Your task to perform on an android device: Is it going to rain this weekend? Image 0: 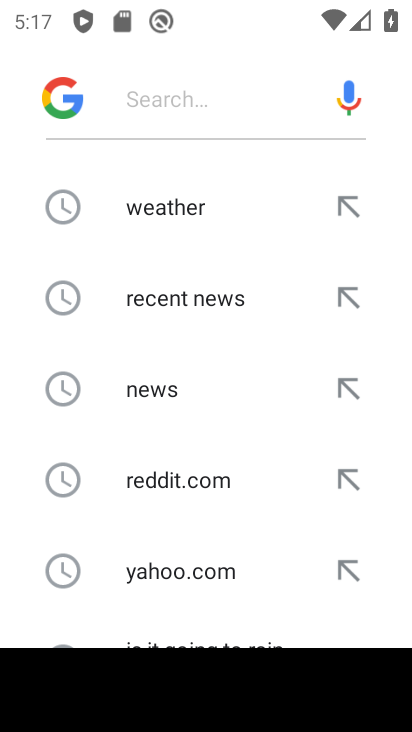
Step 0: drag from (210, 446) to (222, 210)
Your task to perform on an android device: Is it going to rain this weekend? Image 1: 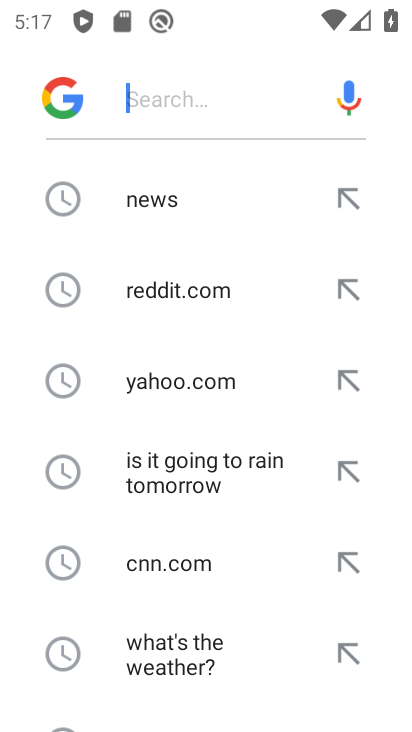
Step 1: click (197, 473)
Your task to perform on an android device: Is it going to rain this weekend? Image 2: 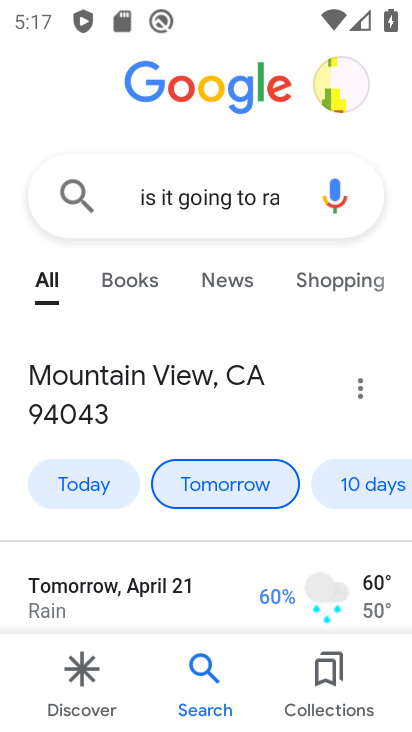
Step 2: drag from (214, 555) to (257, 323)
Your task to perform on an android device: Is it going to rain this weekend? Image 3: 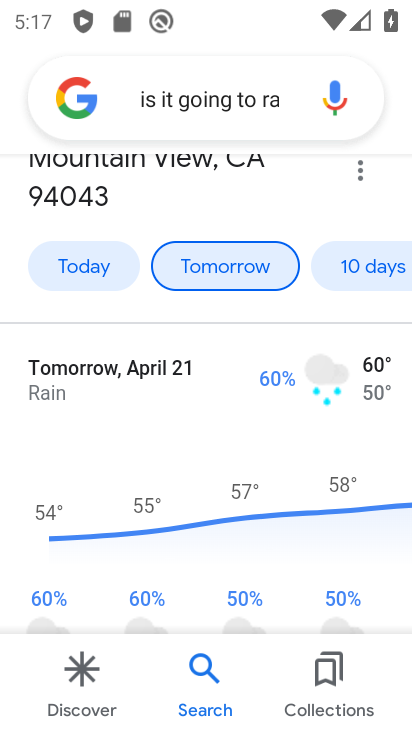
Step 3: click (372, 262)
Your task to perform on an android device: Is it going to rain this weekend? Image 4: 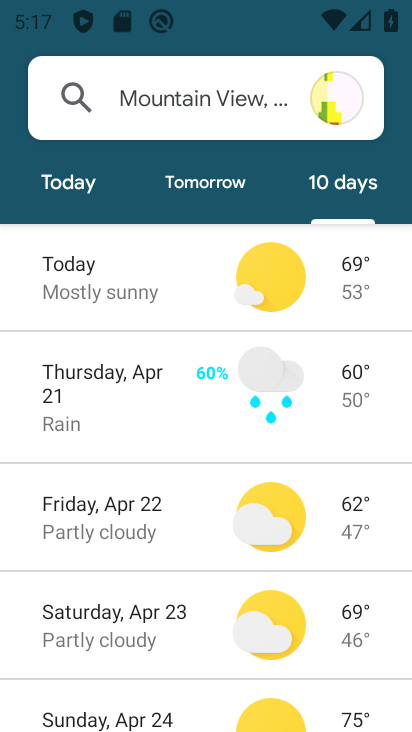
Step 4: click (210, 395)
Your task to perform on an android device: Is it going to rain this weekend? Image 5: 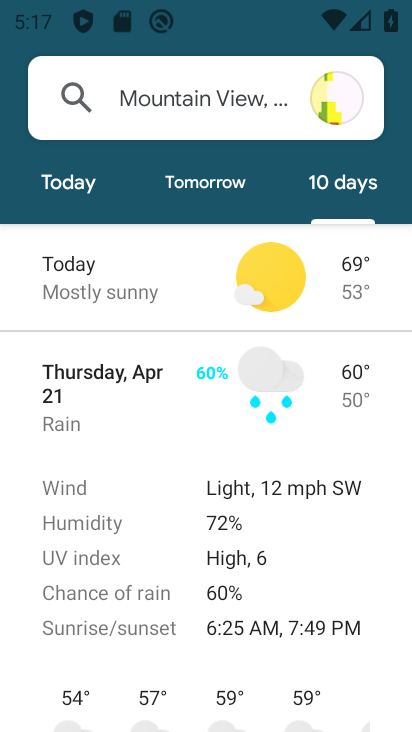
Step 5: task complete